Your task to perform on an android device: change notifications settings Image 0: 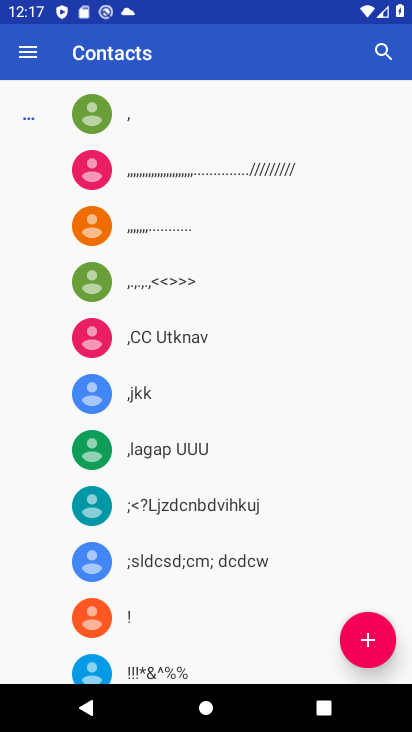
Step 0: press home button
Your task to perform on an android device: change notifications settings Image 1: 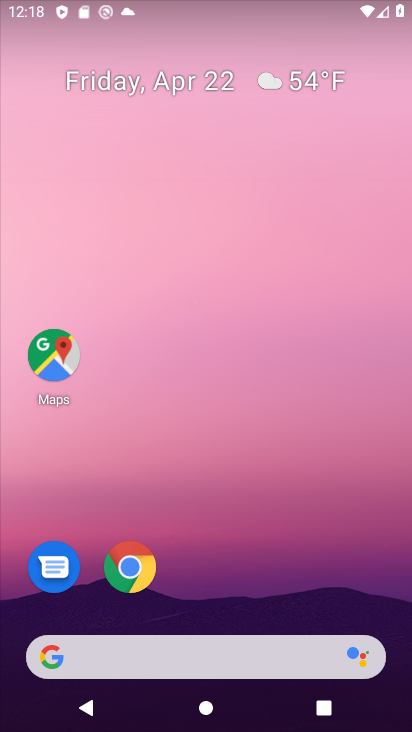
Step 1: drag from (261, 610) to (330, 49)
Your task to perform on an android device: change notifications settings Image 2: 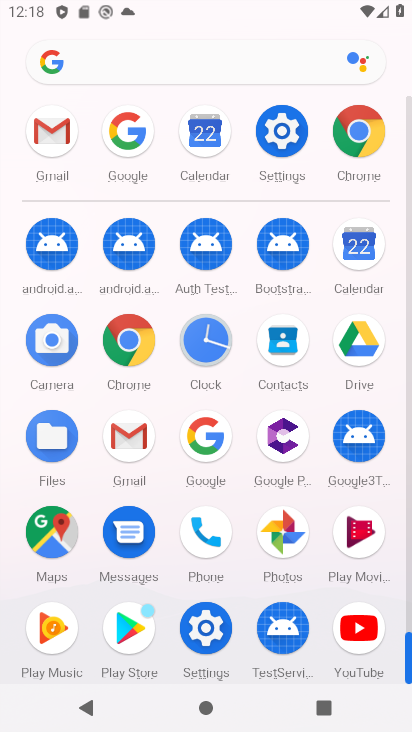
Step 2: click (283, 168)
Your task to perform on an android device: change notifications settings Image 3: 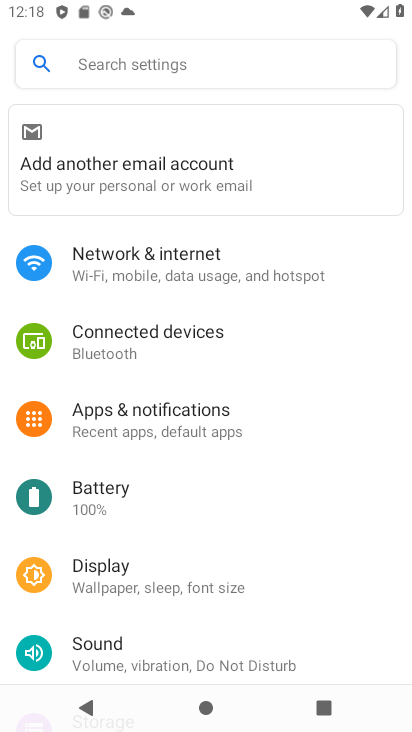
Step 3: click (226, 426)
Your task to perform on an android device: change notifications settings Image 4: 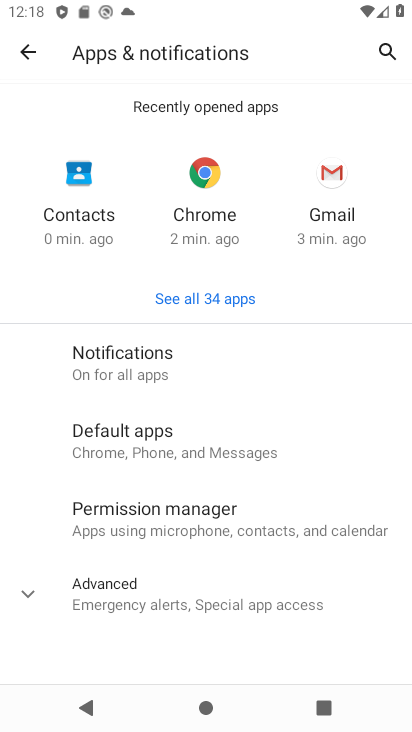
Step 4: click (243, 376)
Your task to perform on an android device: change notifications settings Image 5: 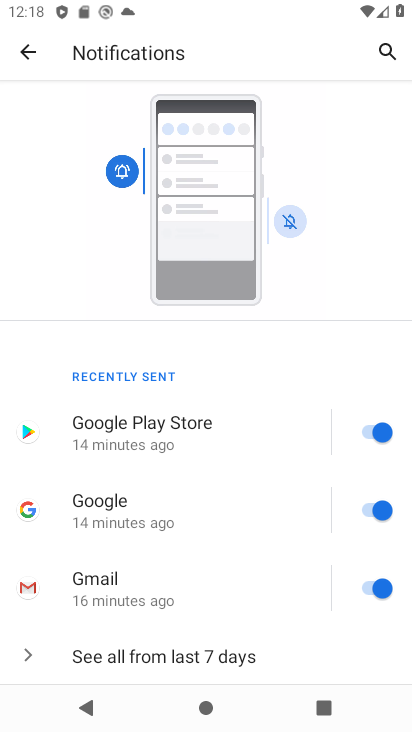
Step 5: click (382, 435)
Your task to perform on an android device: change notifications settings Image 6: 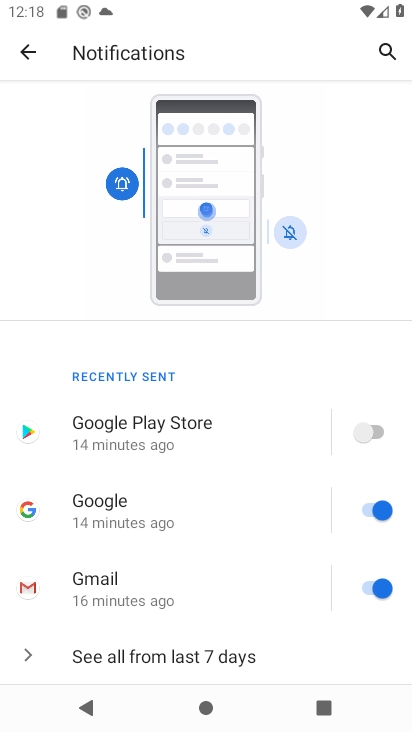
Step 6: task complete